Your task to perform on an android device: turn off javascript in the chrome app Image 0: 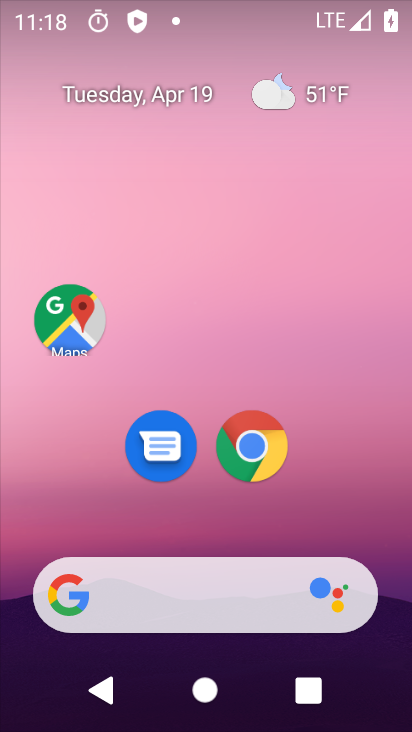
Step 0: click (250, 442)
Your task to perform on an android device: turn off javascript in the chrome app Image 1: 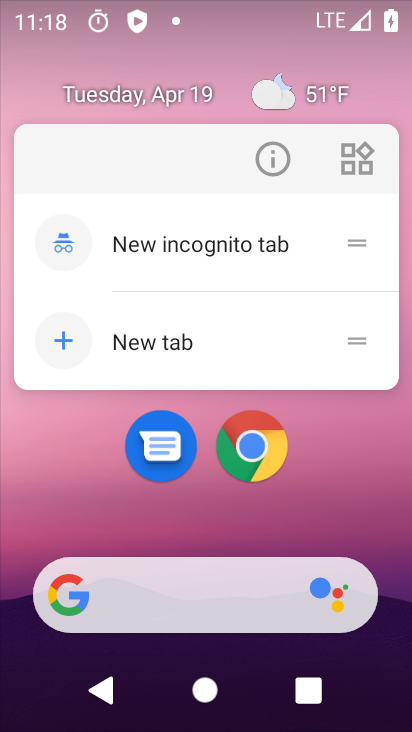
Step 1: click (250, 442)
Your task to perform on an android device: turn off javascript in the chrome app Image 2: 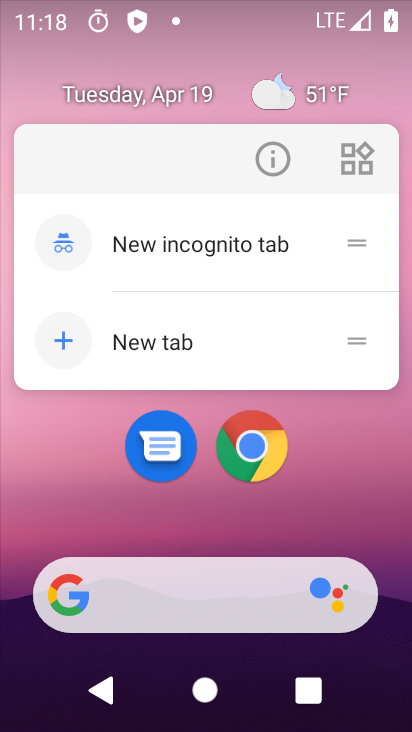
Step 2: click (250, 442)
Your task to perform on an android device: turn off javascript in the chrome app Image 3: 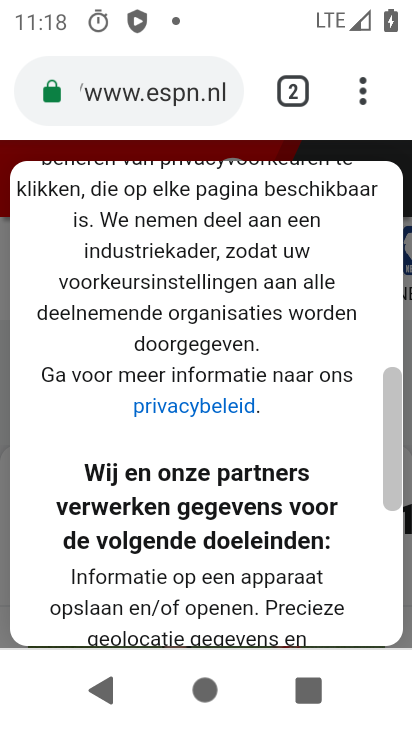
Step 3: click (359, 87)
Your task to perform on an android device: turn off javascript in the chrome app Image 4: 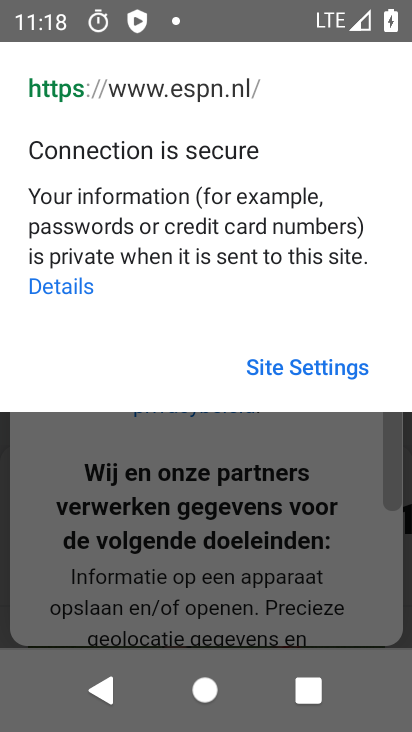
Step 4: press back button
Your task to perform on an android device: turn off javascript in the chrome app Image 5: 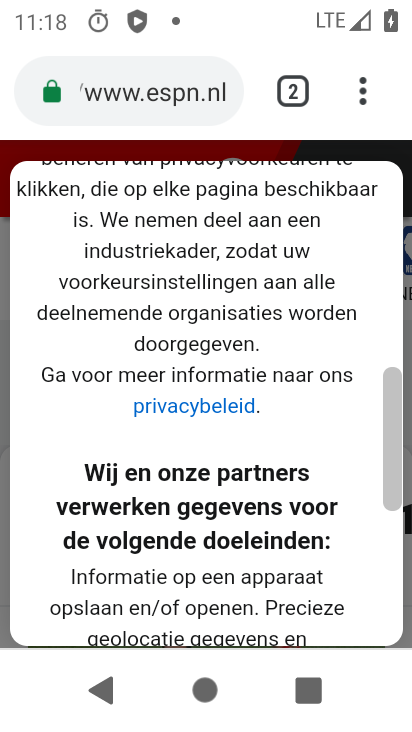
Step 5: click (359, 88)
Your task to perform on an android device: turn off javascript in the chrome app Image 6: 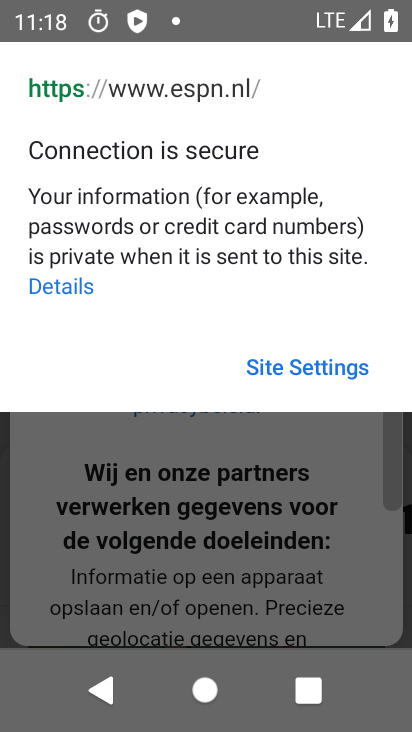
Step 6: press back button
Your task to perform on an android device: turn off javascript in the chrome app Image 7: 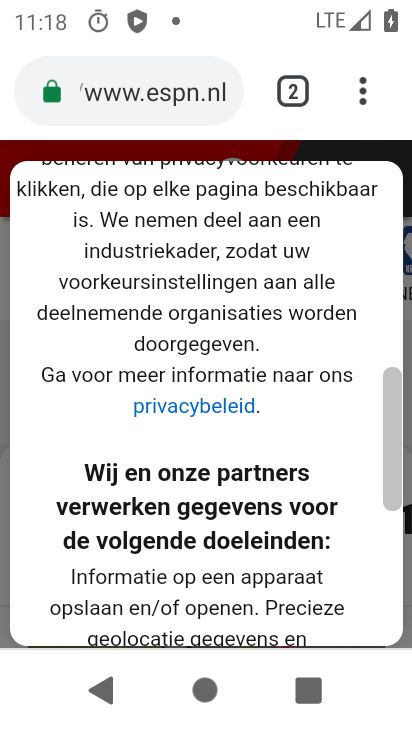
Step 7: click (362, 83)
Your task to perform on an android device: turn off javascript in the chrome app Image 8: 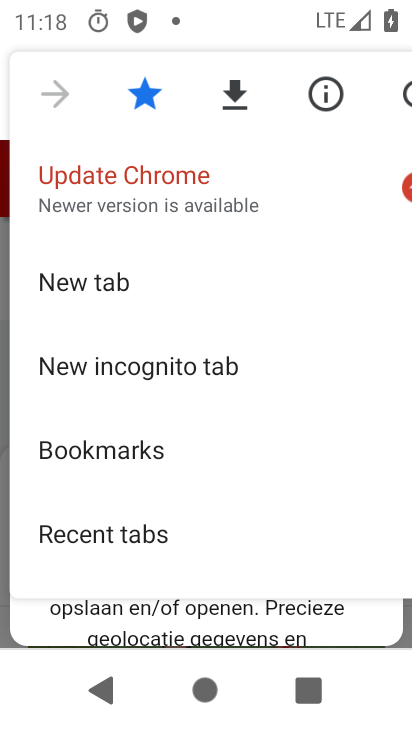
Step 8: drag from (271, 514) to (274, 291)
Your task to perform on an android device: turn off javascript in the chrome app Image 9: 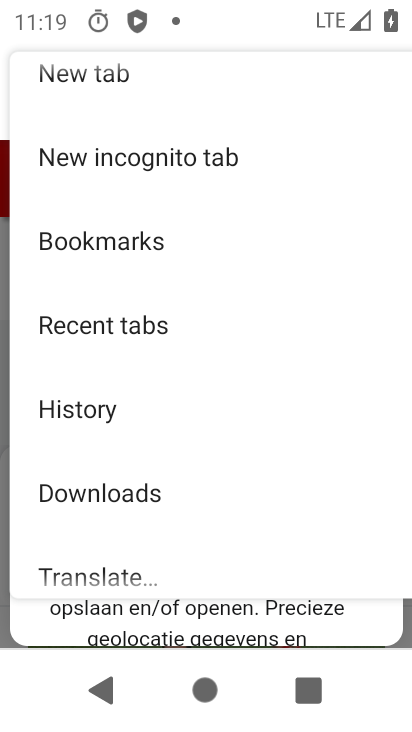
Step 9: drag from (277, 363) to (269, 269)
Your task to perform on an android device: turn off javascript in the chrome app Image 10: 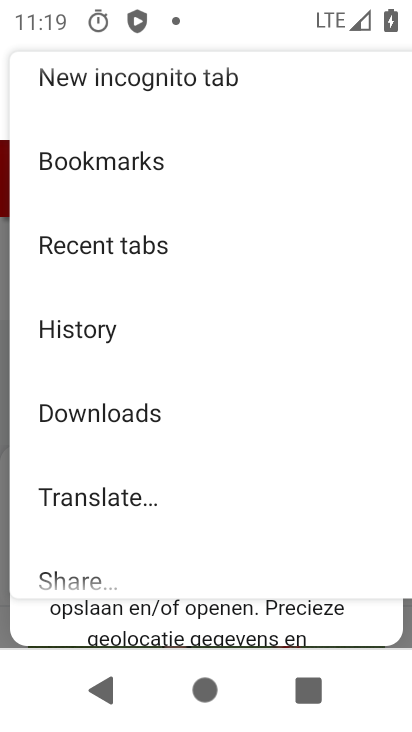
Step 10: drag from (275, 377) to (272, 286)
Your task to perform on an android device: turn off javascript in the chrome app Image 11: 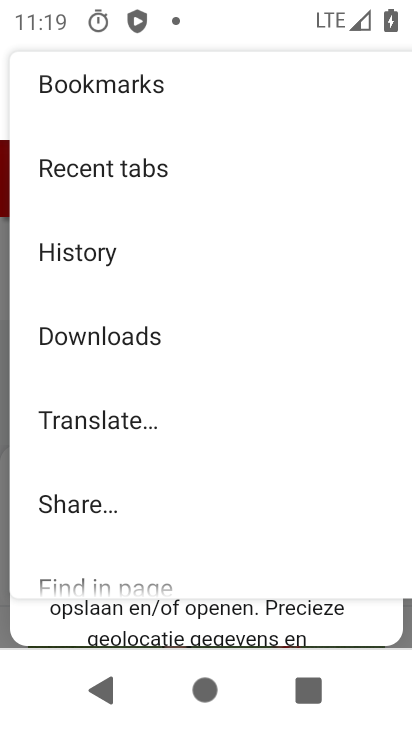
Step 11: drag from (278, 310) to (276, 269)
Your task to perform on an android device: turn off javascript in the chrome app Image 12: 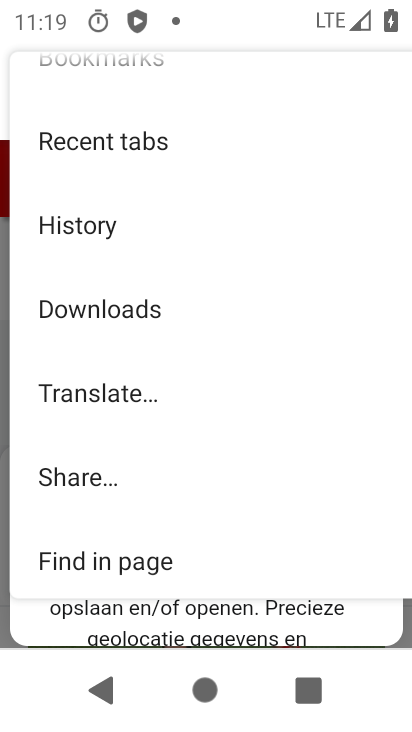
Step 12: drag from (278, 535) to (273, 376)
Your task to perform on an android device: turn off javascript in the chrome app Image 13: 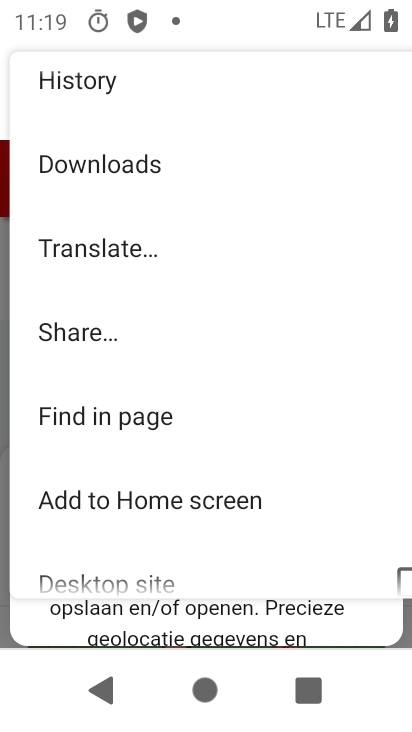
Step 13: drag from (291, 464) to (298, 303)
Your task to perform on an android device: turn off javascript in the chrome app Image 14: 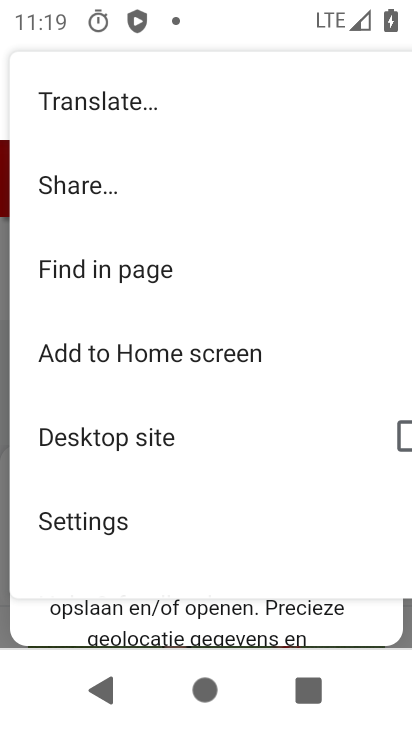
Step 14: click (76, 511)
Your task to perform on an android device: turn off javascript in the chrome app Image 15: 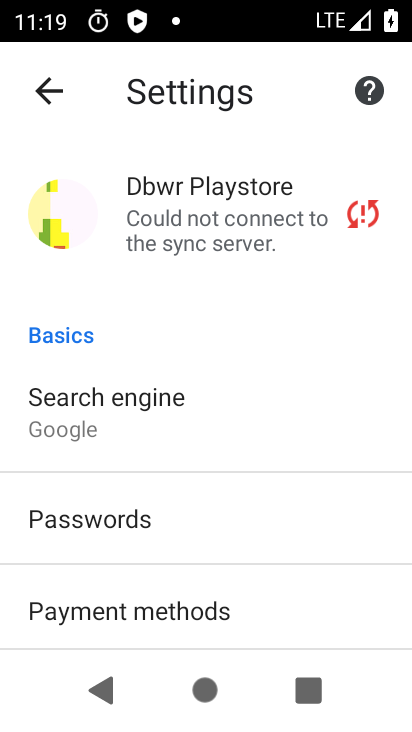
Step 15: drag from (313, 459) to (305, 211)
Your task to perform on an android device: turn off javascript in the chrome app Image 16: 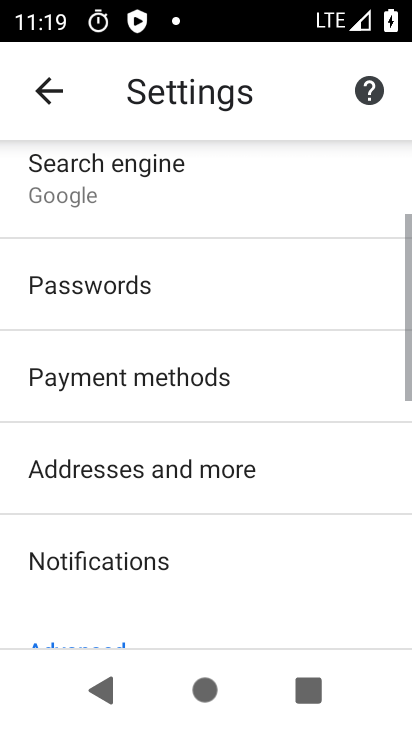
Step 16: click (315, 378)
Your task to perform on an android device: turn off javascript in the chrome app Image 17: 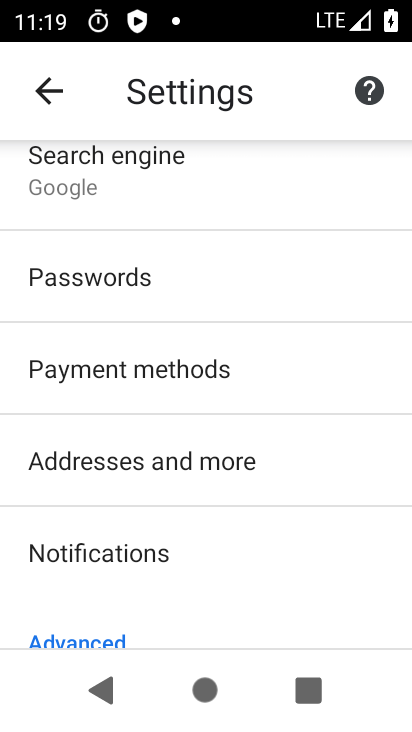
Step 17: drag from (313, 406) to (313, 350)
Your task to perform on an android device: turn off javascript in the chrome app Image 18: 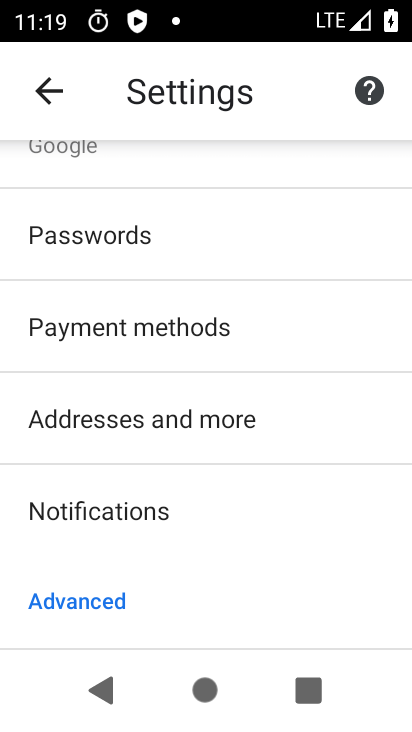
Step 18: drag from (308, 411) to (293, 284)
Your task to perform on an android device: turn off javascript in the chrome app Image 19: 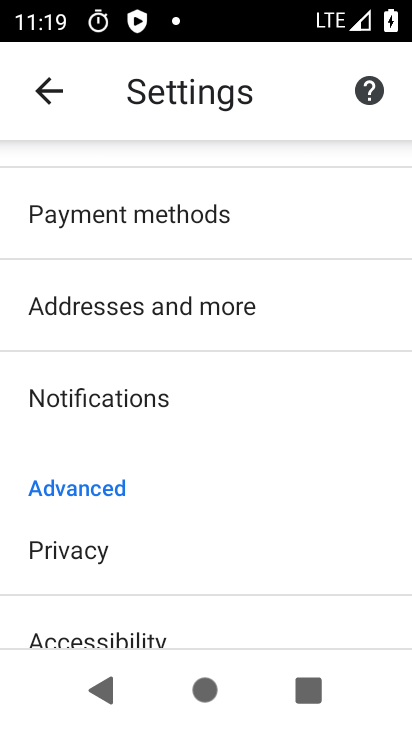
Step 19: drag from (287, 562) to (288, 254)
Your task to perform on an android device: turn off javascript in the chrome app Image 20: 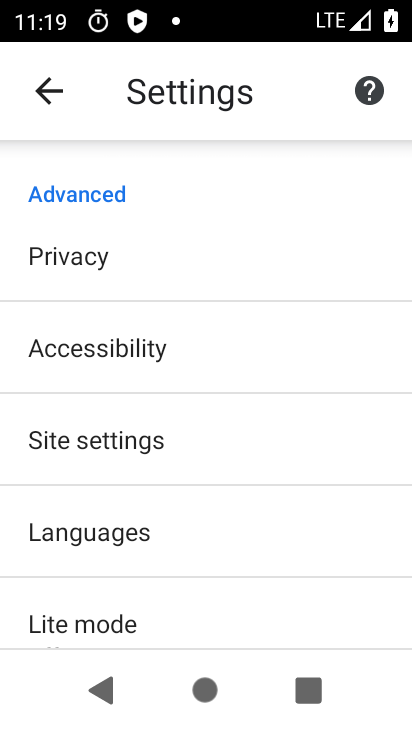
Step 20: click (79, 434)
Your task to perform on an android device: turn off javascript in the chrome app Image 21: 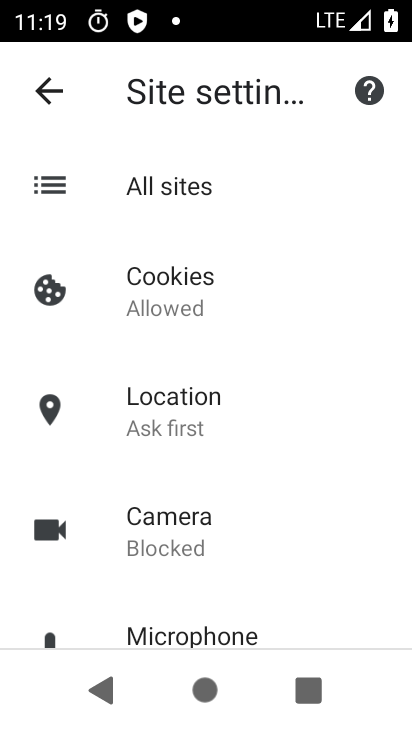
Step 21: drag from (325, 622) to (348, 232)
Your task to perform on an android device: turn off javascript in the chrome app Image 22: 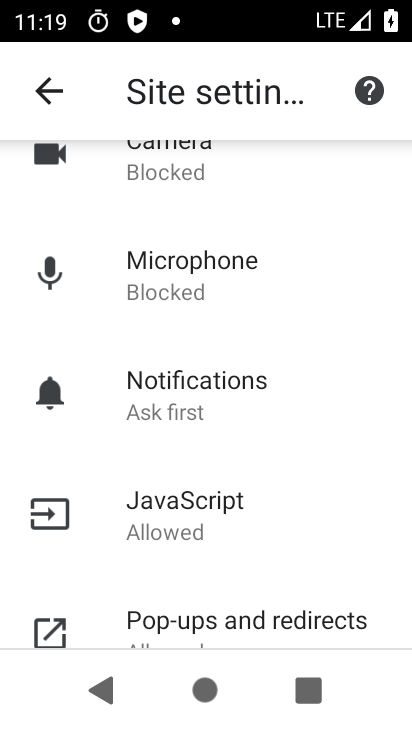
Step 22: click (160, 507)
Your task to perform on an android device: turn off javascript in the chrome app Image 23: 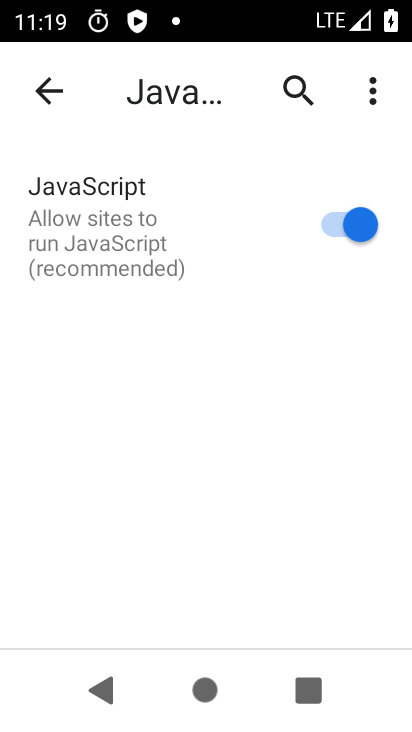
Step 23: click (329, 220)
Your task to perform on an android device: turn off javascript in the chrome app Image 24: 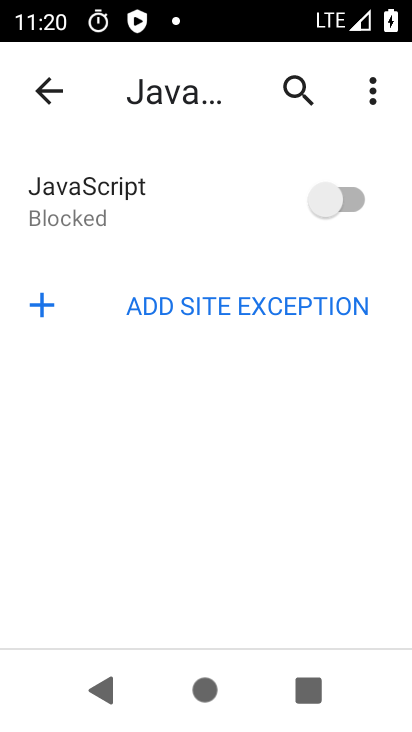
Step 24: task complete